Your task to perform on an android device: snooze an email in the gmail app Image 0: 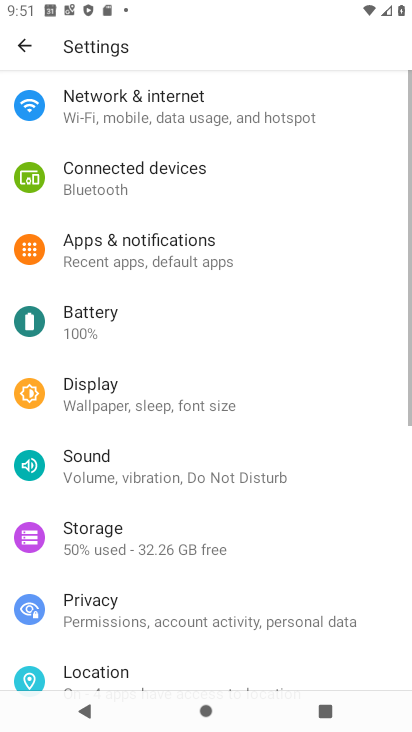
Step 0: press home button
Your task to perform on an android device: snooze an email in the gmail app Image 1: 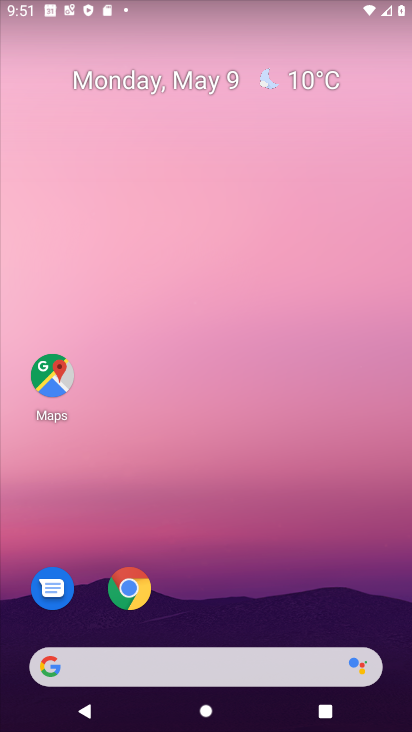
Step 1: drag from (173, 669) to (295, 238)
Your task to perform on an android device: snooze an email in the gmail app Image 2: 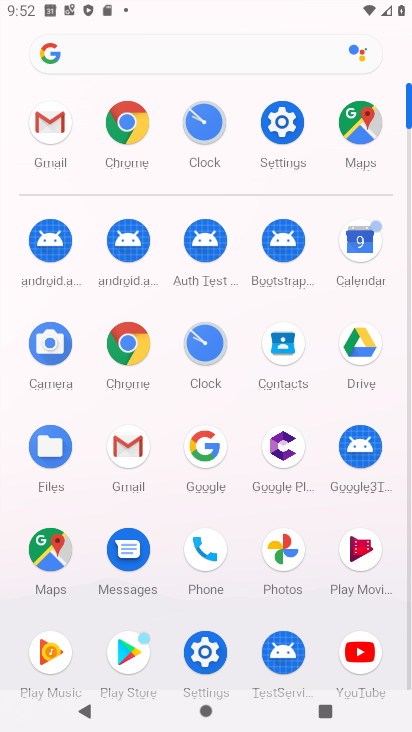
Step 2: click (51, 128)
Your task to perform on an android device: snooze an email in the gmail app Image 3: 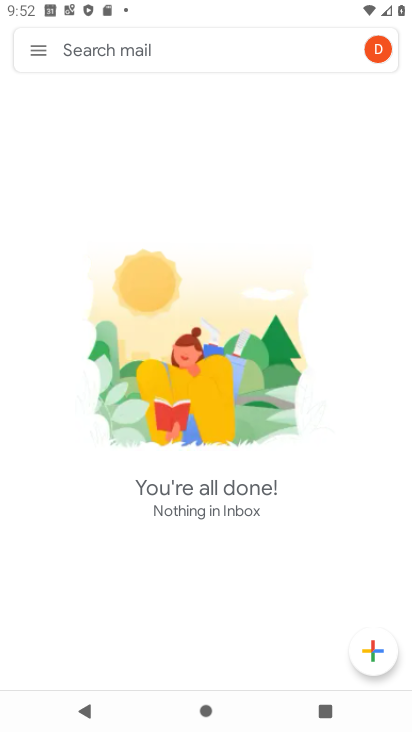
Step 3: task complete